Your task to perform on an android device: Open Google Chrome and open the bookmarks view Image 0: 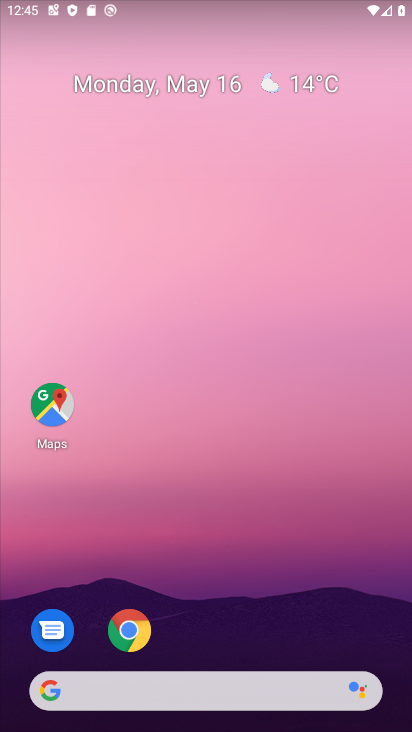
Step 0: click (123, 636)
Your task to perform on an android device: Open Google Chrome and open the bookmarks view Image 1: 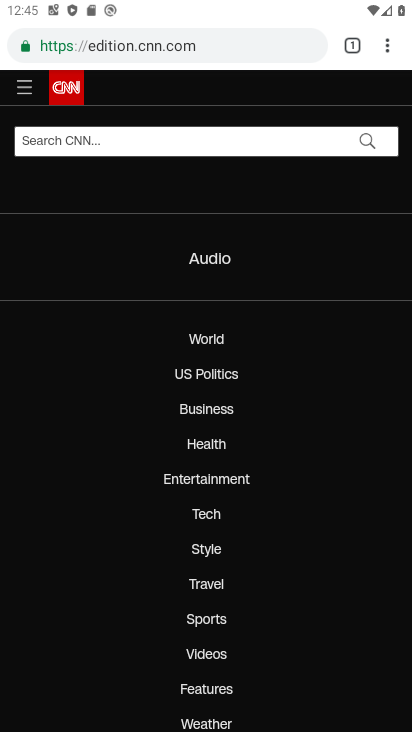
Step 1: click (383, 43)
Your task to perform on an android device: Open Google Chrome and open the bookmarks view Image 2: 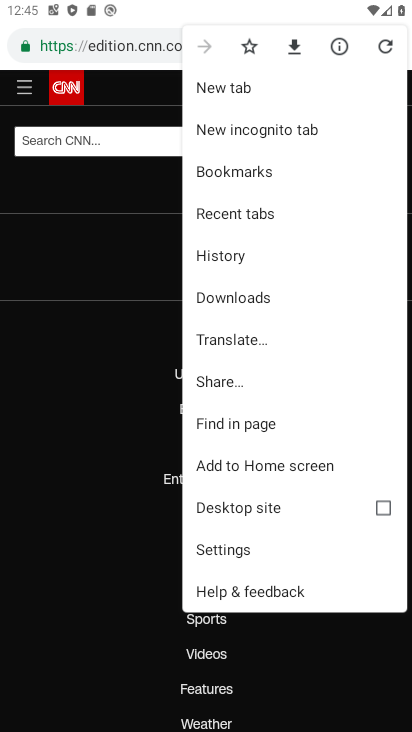
Step 2: click (279, 176)
Your task to perform on an android device: Open Google Chrome and open the bookmarks view Image 3: 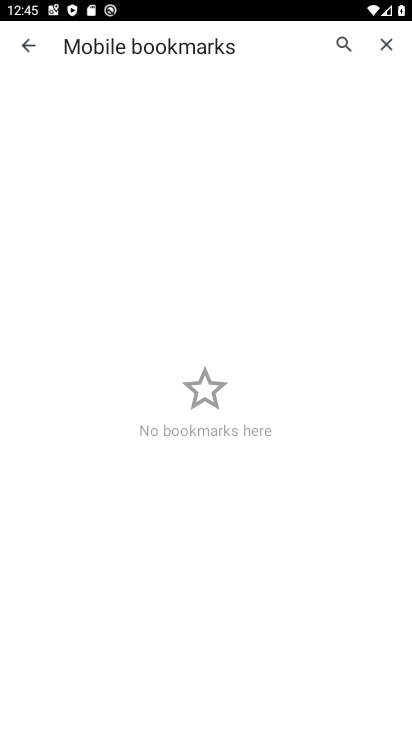
Step 3: task complete